Your task to perform on an android device: all mails in gmail Image 0: 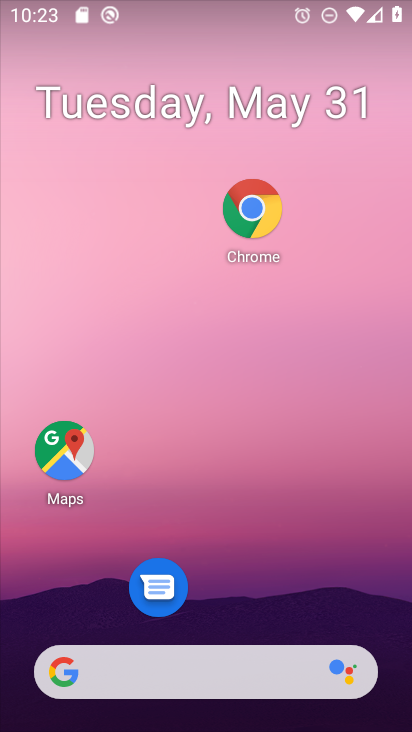
Step 0: drag from (230, 618) to (198, 6)
Your task to perform on an android device: all mails in gmail Image 1: 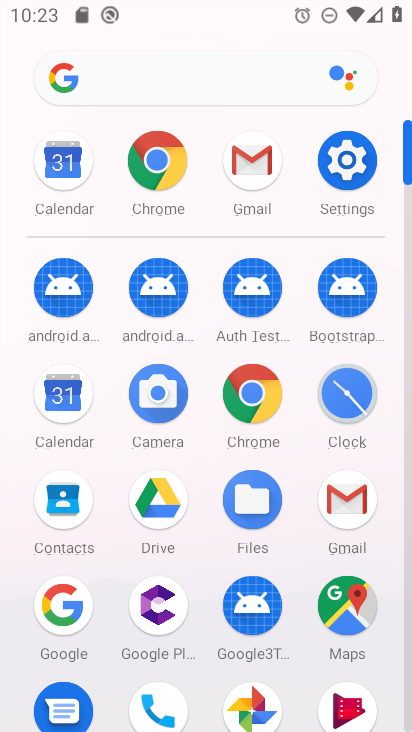
Step 1: click (254, 153)
Your task to perform on an android device: all mails in gmail Image 2: 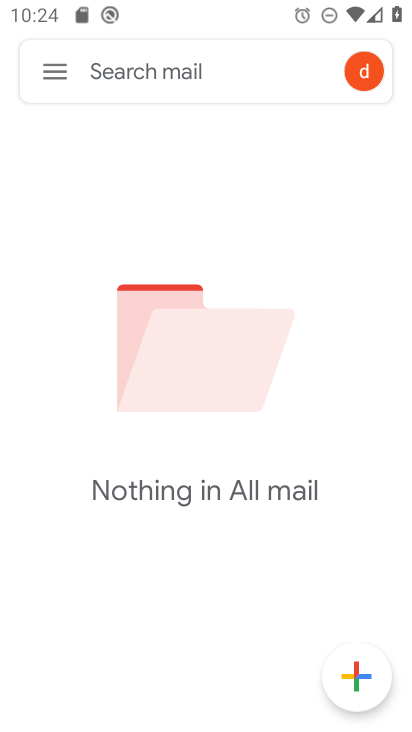
Step 2: task complete